Your task to perform on an android device: star an email in the gmail app Image 0: 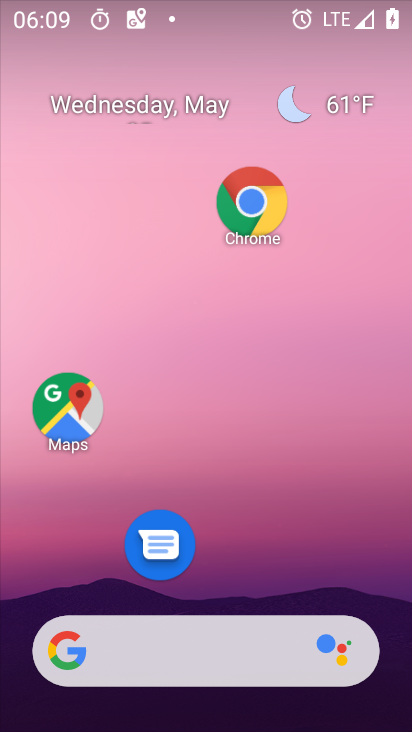
Step 0: drag from (238, 617) to (274, 183)
Your task to perform on an android device: star an email in the gmail app Image 1: 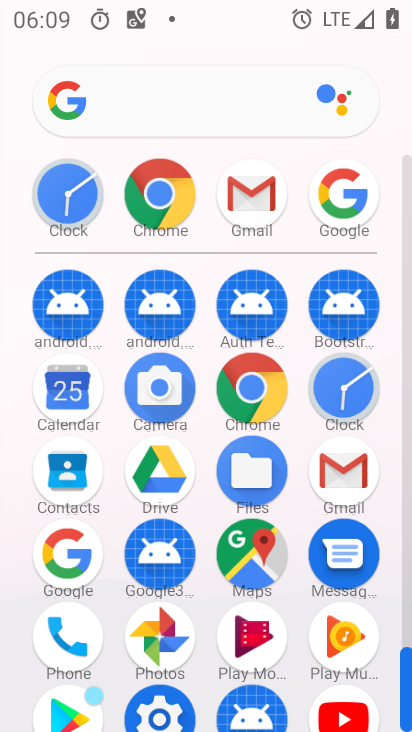
Step 1: click (321, 486)
Your task to perform on an android device: star an email in the gmail app Image 2: 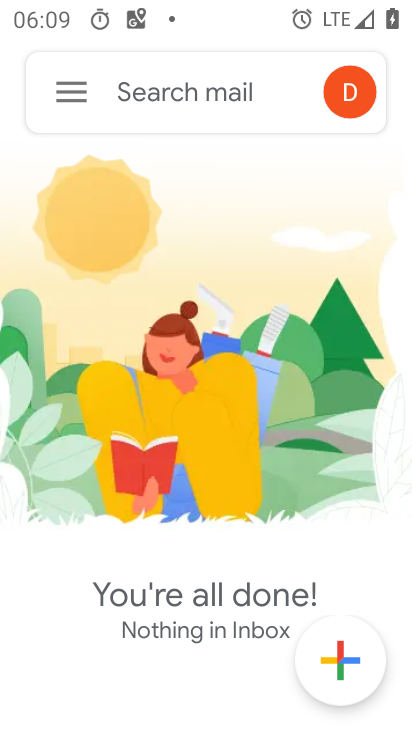
Step 2: click (66, 91)
Your task to perform on an android device: star an email in the gmail app Image 3: 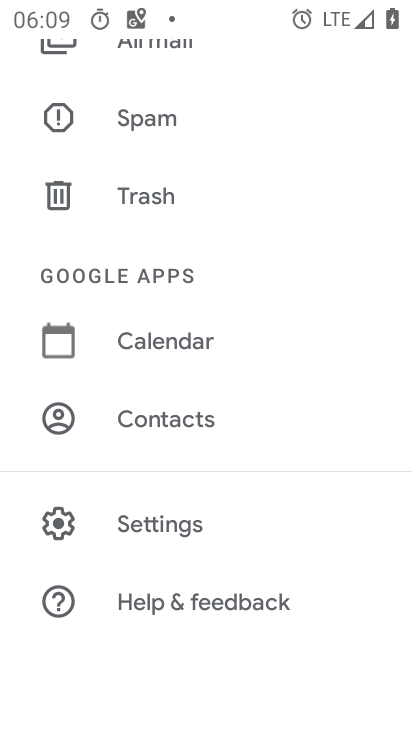
Step 3: drag from (175, 112) to (204, 590)
Your task to perform on an android device: star an email in the gmail app Image 4: 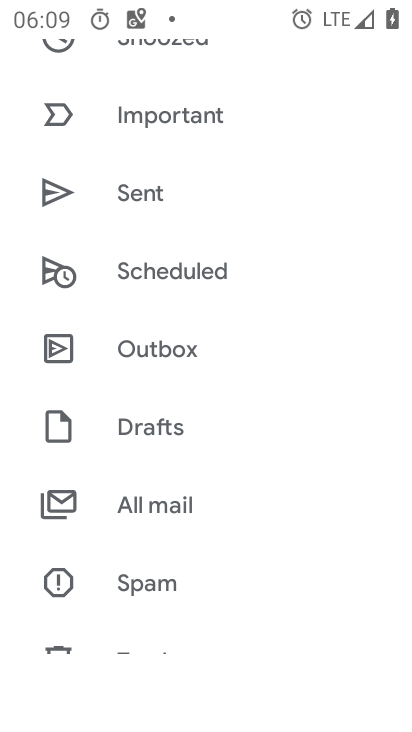
Step 4: drag from (216, 80) to (244, 622)
Your task to perform on an android device: star an email in the gmail app Image 5: 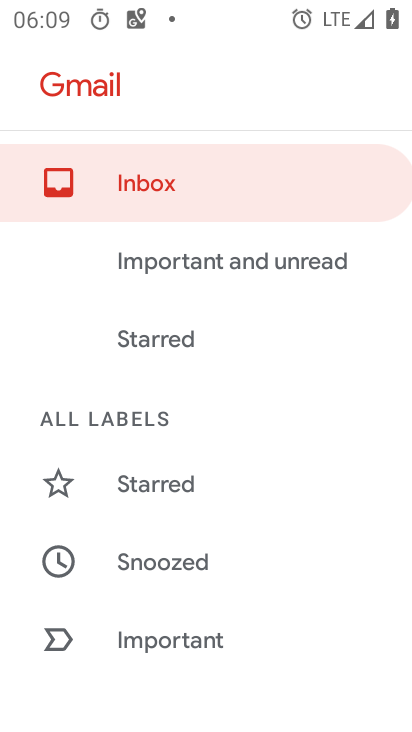
Step 5: click (138, 180)
Your task to perform on an android device: star an email in the gmail app Image 6: 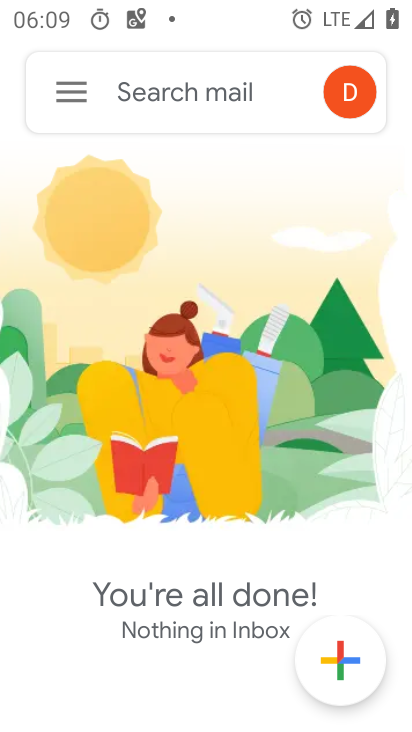
Step 6: task complete